Your task to perform on an android device: Do I have any events this weekend? Image 0: 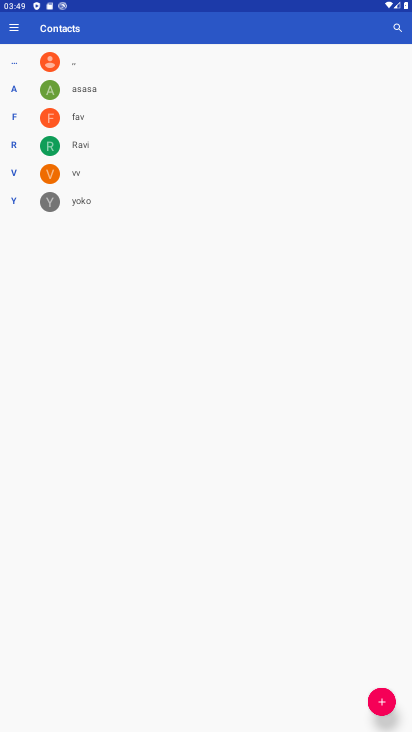
Step 0: press home button
Your task to perform on an android device: Do I have any events this weekend? Image 1: 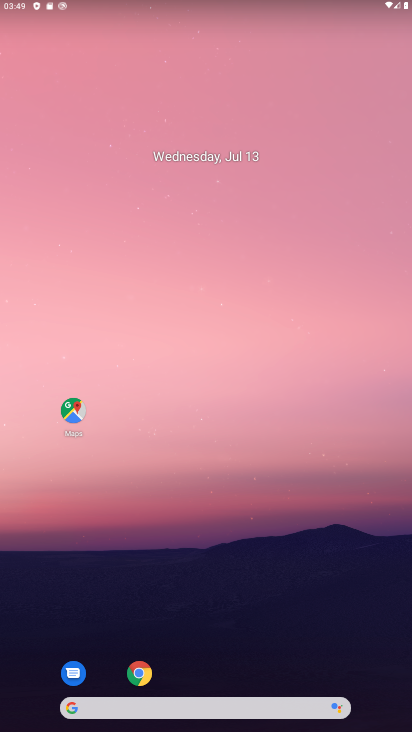
Step 1: drag from (300, 639) to (298, 159)
Your task to perform on an android device: Do I have any events this weekend? Image 2: 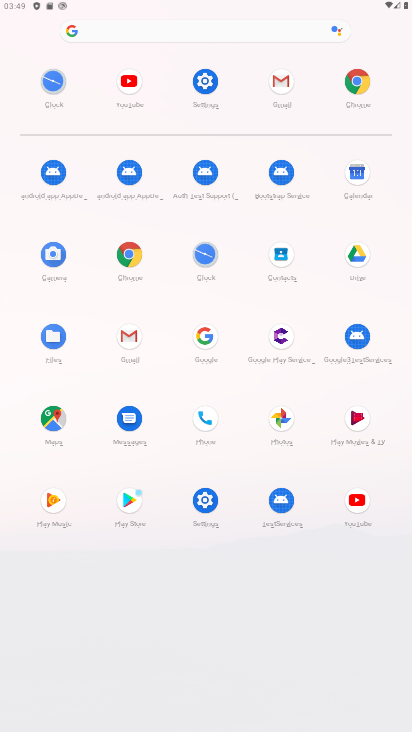
Step 2: click (134, 244)
Your task to perform on an android device: Do I have any events this weekend? Image 3: 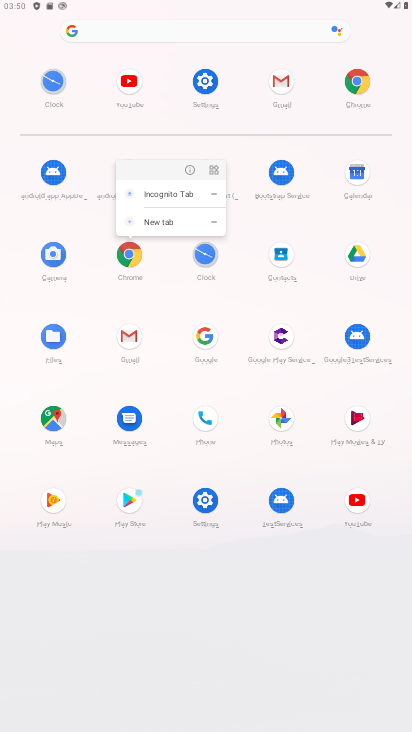
Step 3: click (121, 251)
Your task to perform on an android device: Do I have any events this weekend? Image 4: 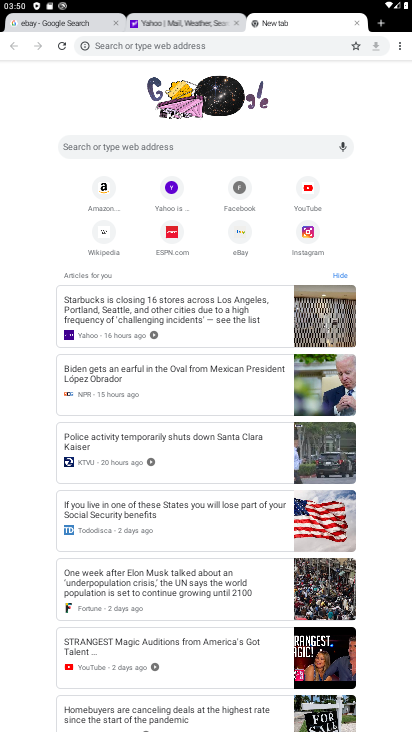
Step 4: click (245, 46)
Your task to perform on an android device: Do I have any events this weekend? Image 5: 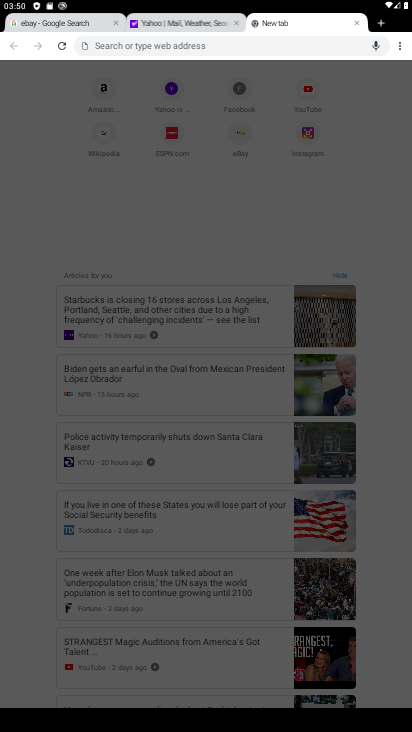
Step 5: type "Do I have any events this weekend?"
Your task to perform on an android device: Do I have any events this weekend? Image 6: 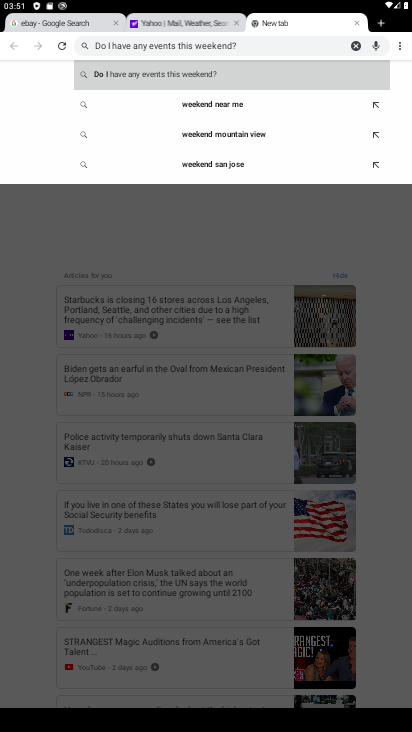
Step 6: click (202, 70)
Your task to perform on an android device: Do I have any events this weekend? Image 7: 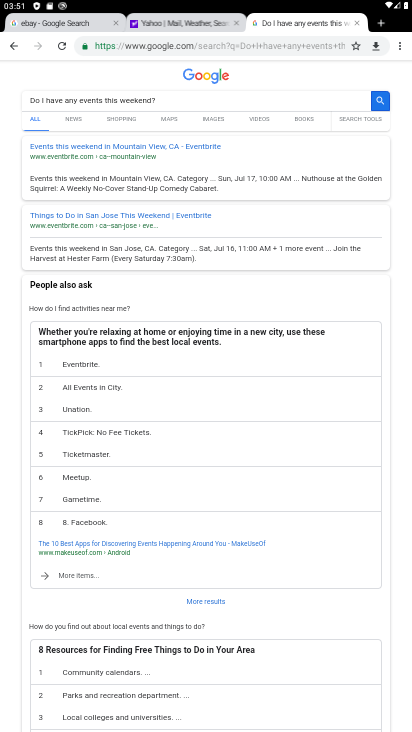
Step 7: click (163, 102)
Your task to perform on an android device: Do I have any events this weekend? Image 8: 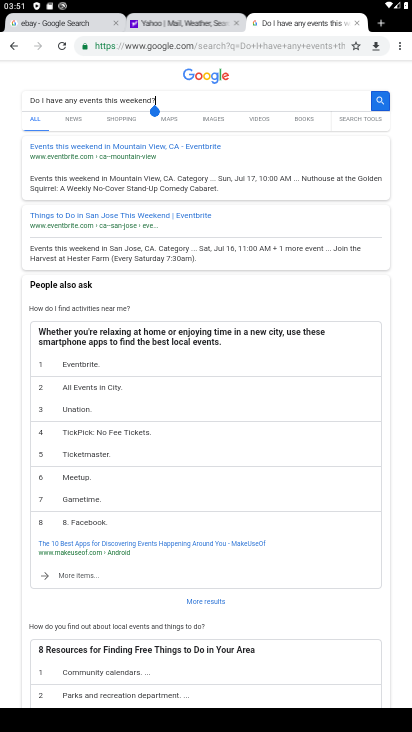
Step 8: task complete